Your task to perform on an android device: Set the phone to "Do not disturb". Image 0: 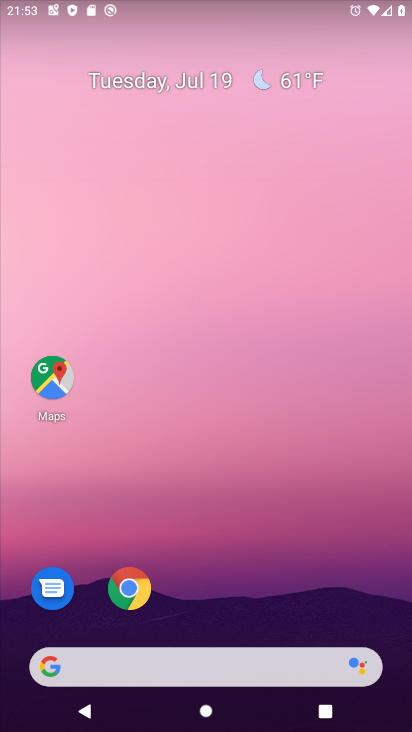
Step 0: press home button
Your task to perform on an android device: Set the phone to "Do not disturb". Image 1: 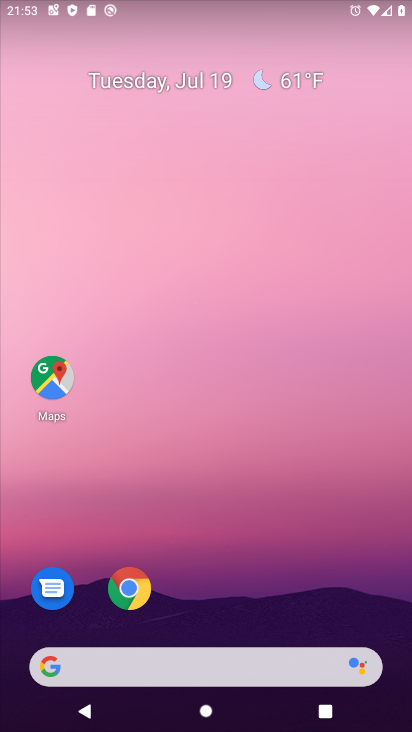
Step 1: drag from (230, 5) to (259, 534)
Your task to perform on an android device: Set the phone to "Do not disturb". Image 2: 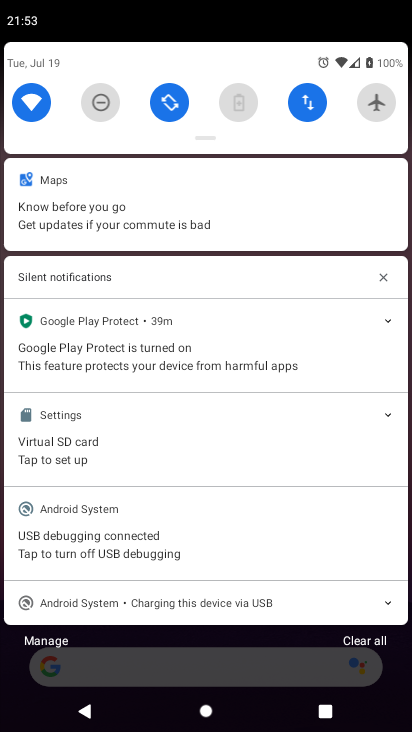
Step 2: click (97, 95)
Your task to perform on an android device: Set the phone to "Do not disturb". Image 3: 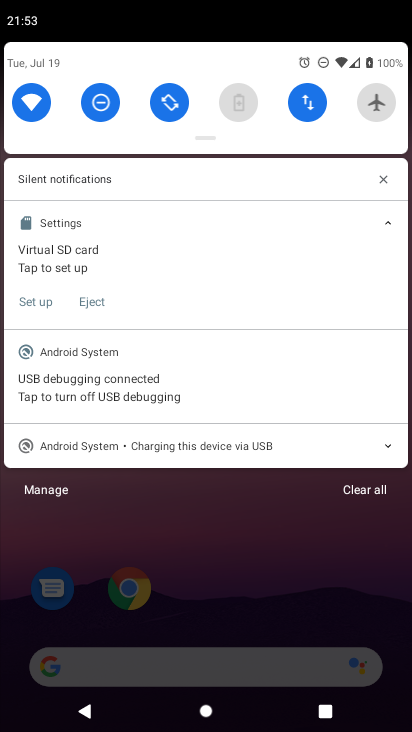
Step 3: task complete